Your task to perform on an android device: Open network settings Image 0: 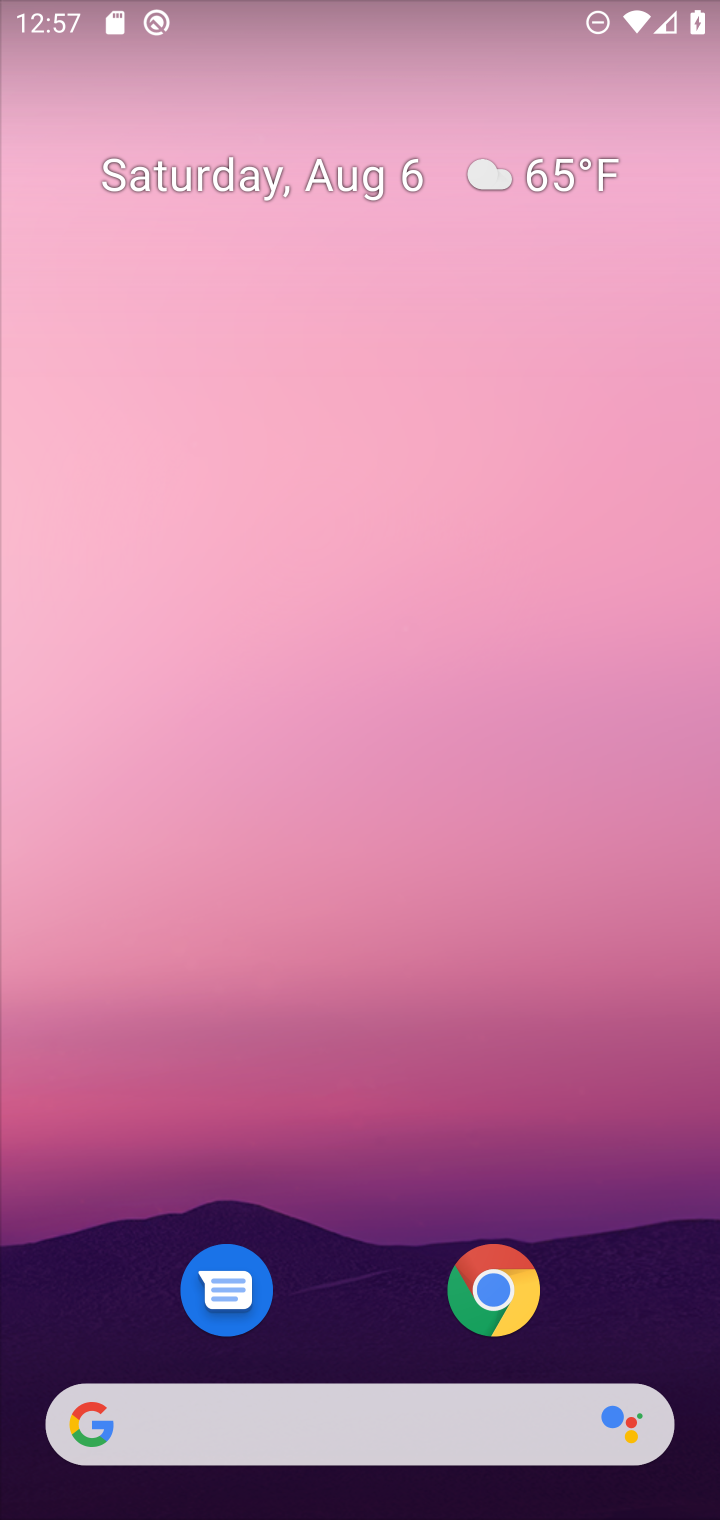
Step 0: press home button
Your task to perform on an android device: Open network settings Image 1: 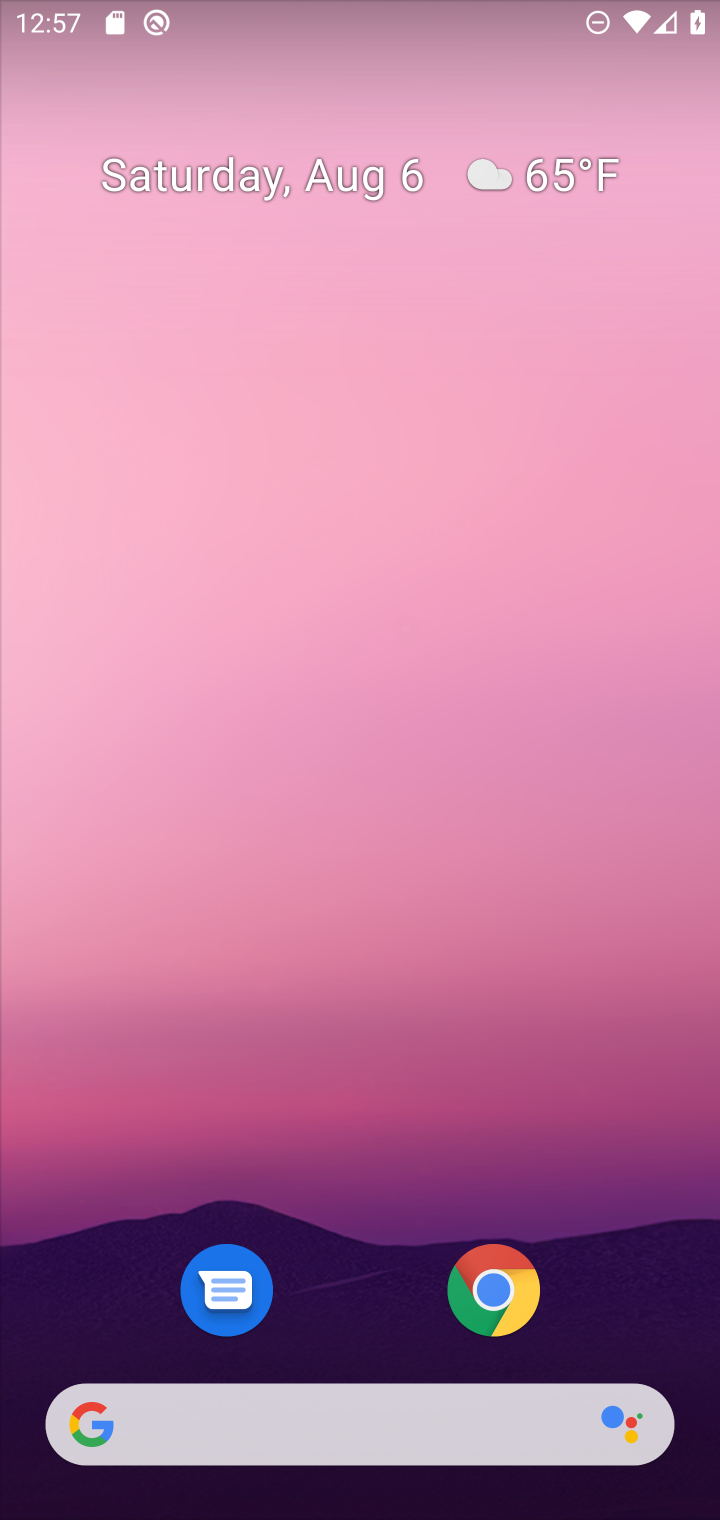
Step 1: drag from (340, 1235) to (700, 1125)
Your task to perform on an android device: Open network settings Image 2: 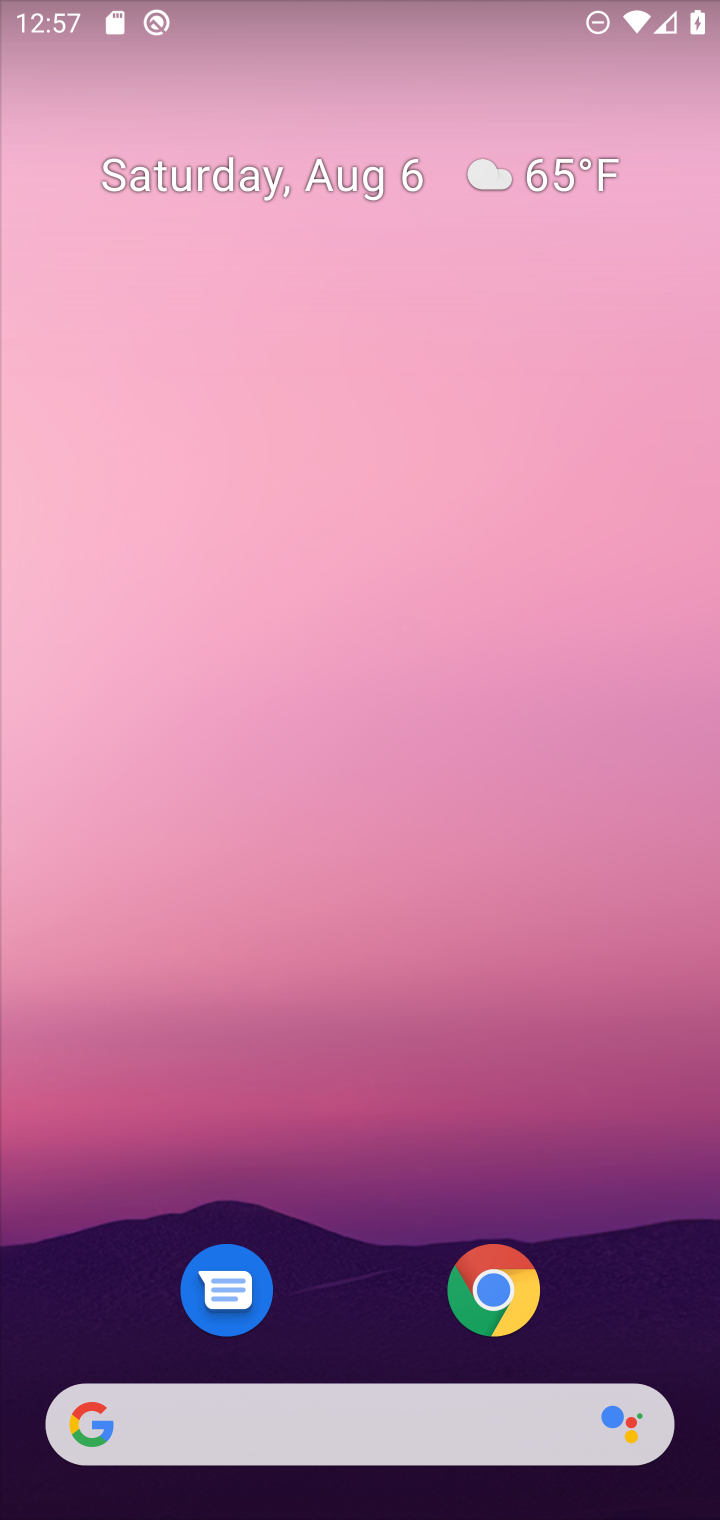
Step 2: drag from (349, 1243) to (308, 26)
Your task to perform on an android device: Open network settings Image 3: 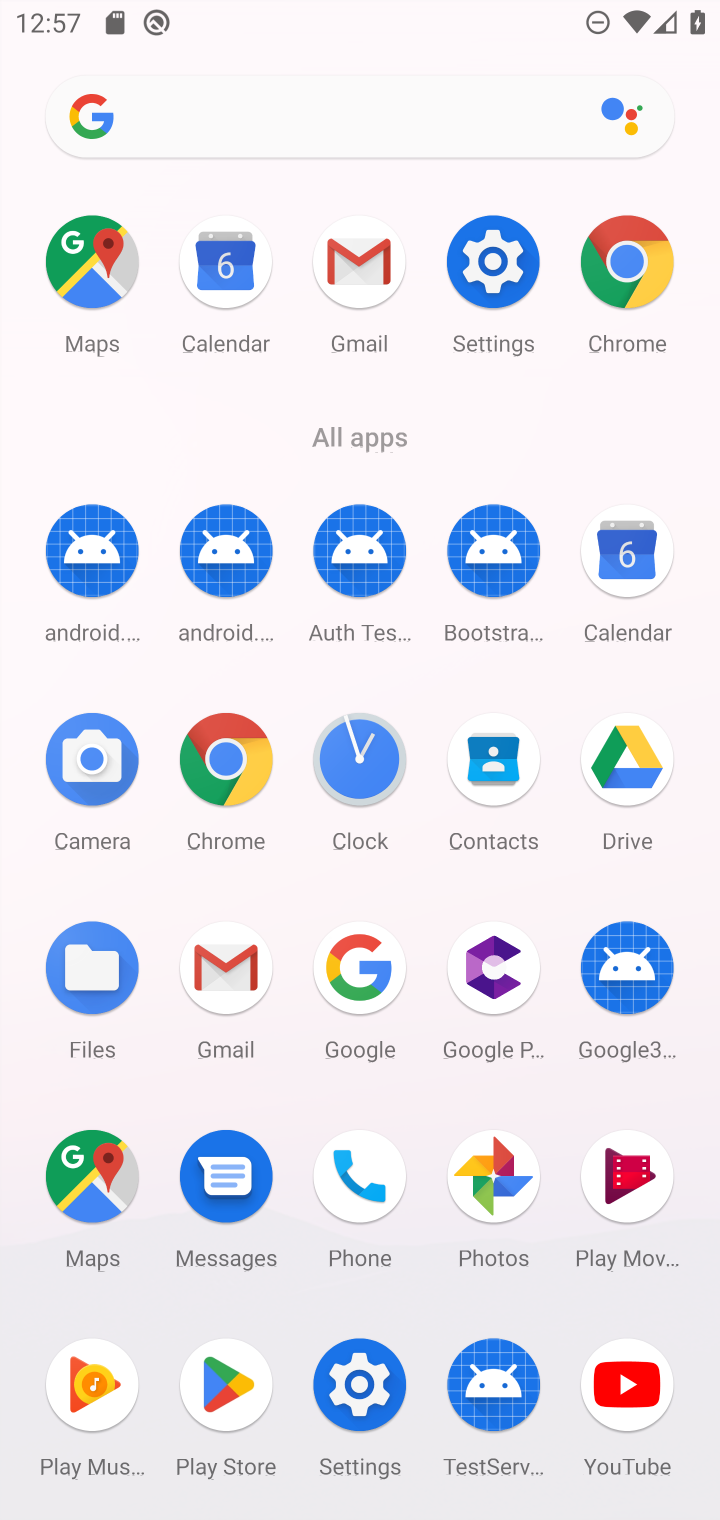
Step 3: click (357, 1443)
Your task to perform on an android device: Open network settings Image 4: 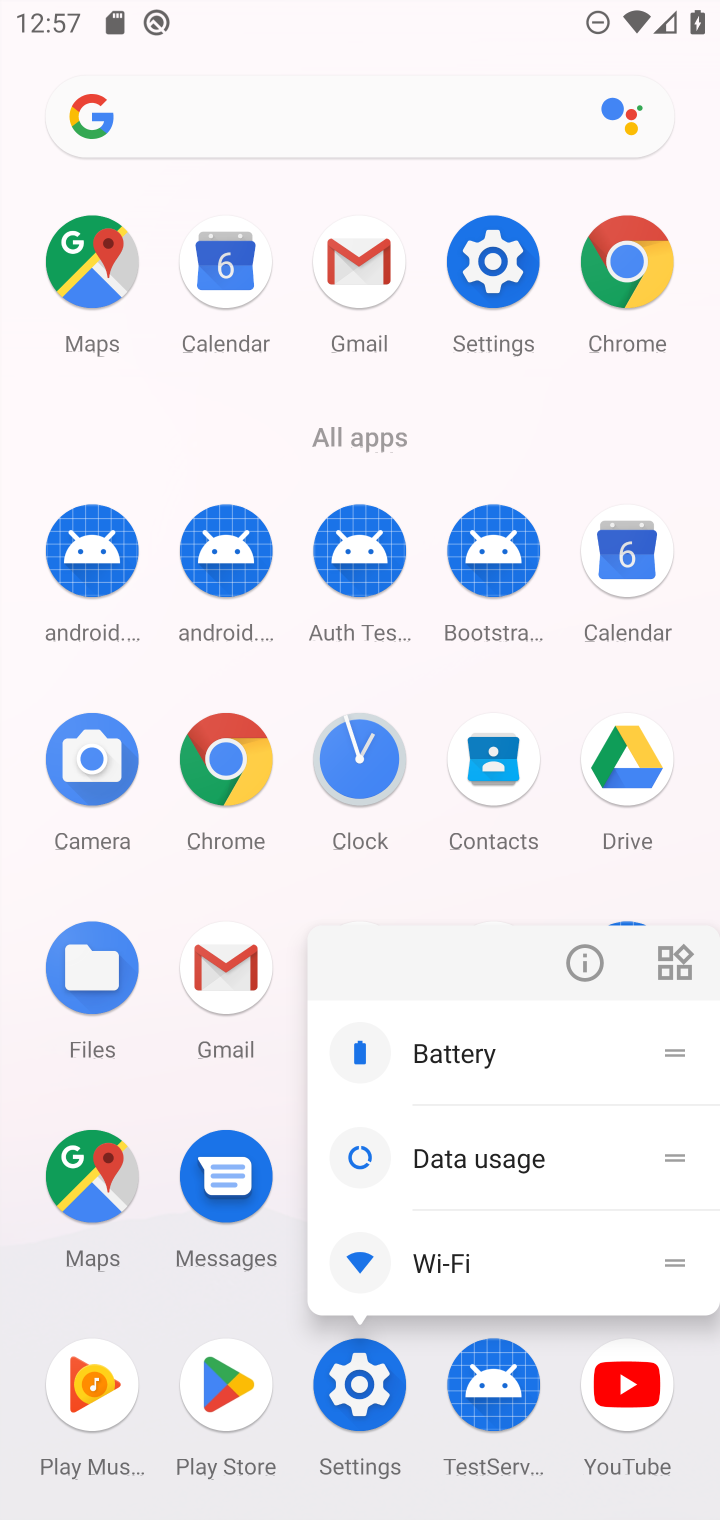
Step 4: click (383, 1356)
Your task to perform on an android device: Open network settings Image 5: 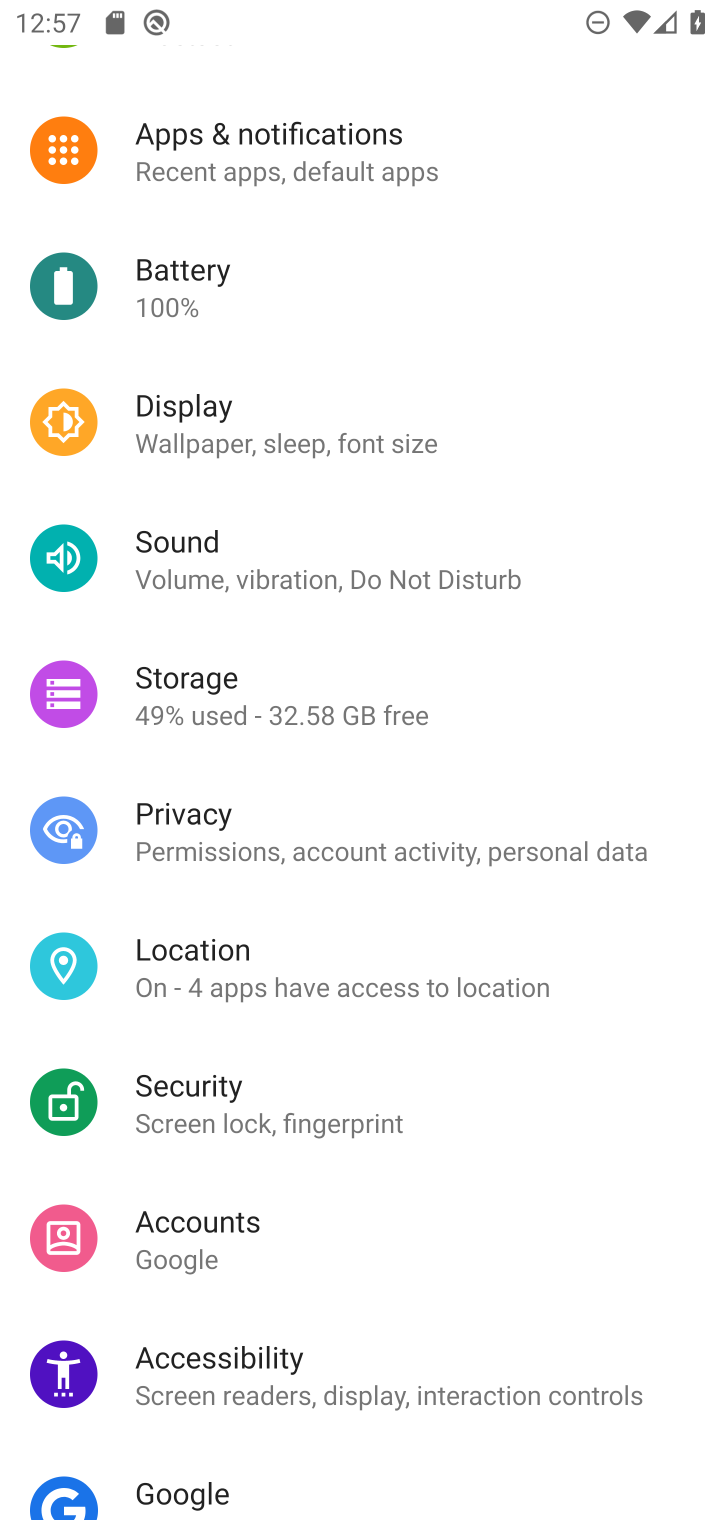
Step 5: drag from (328, 544) to (238, 1016)
Your task to perform on an android device: Open network settings Image 6: 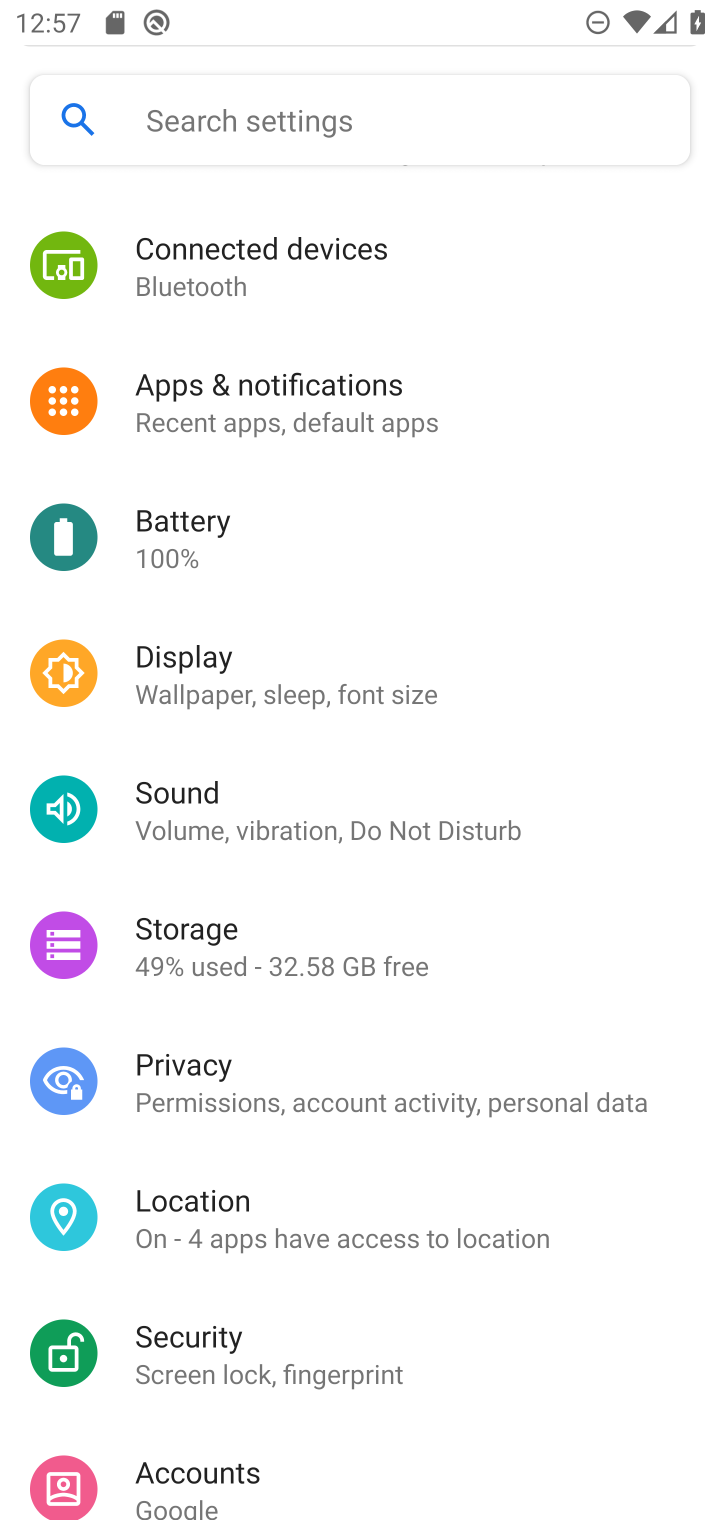
Step 6: drag from (199, 393) to (58, 1107)
Your task to perform on an android device: Open network settings Image 7: 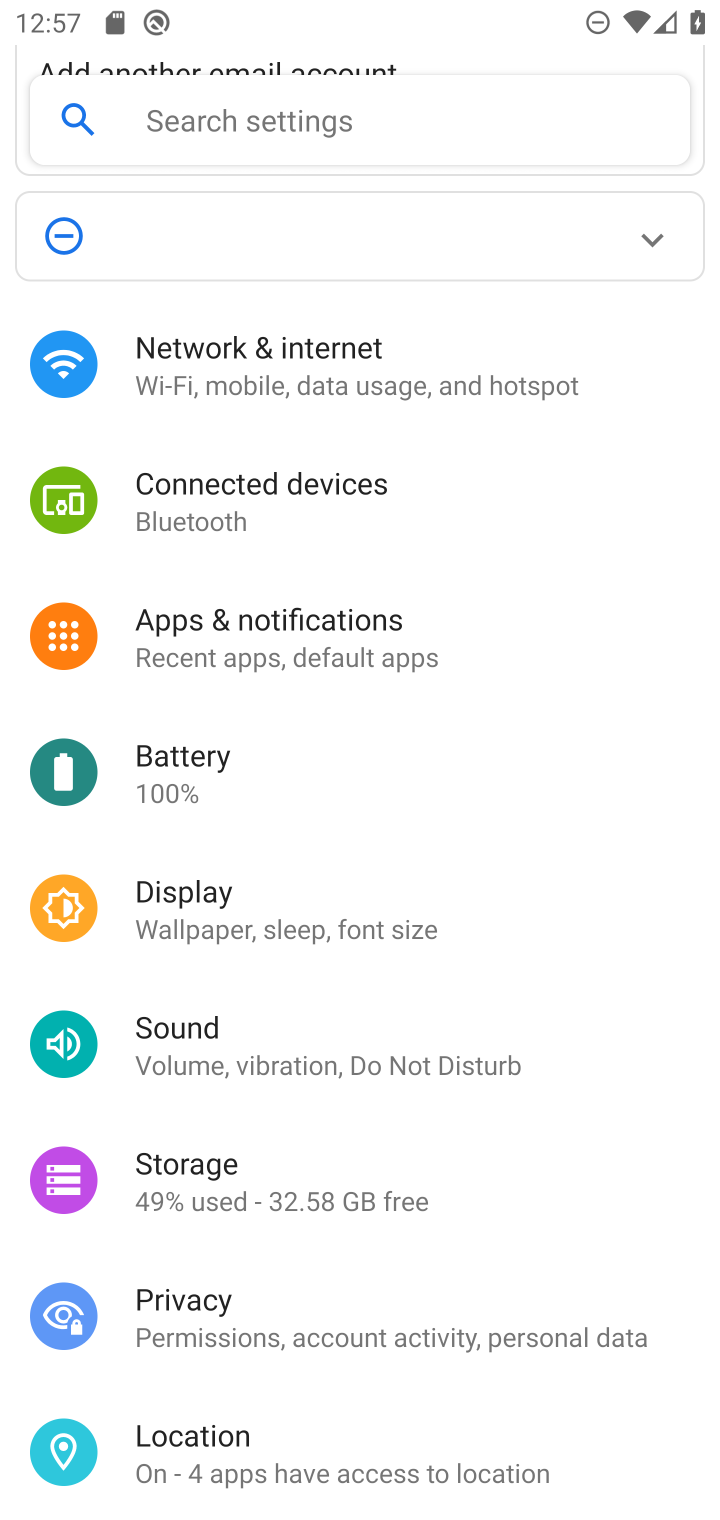
Step 7: click (275, 412)
Your task to perform on an android device: Open network settings Image 8: 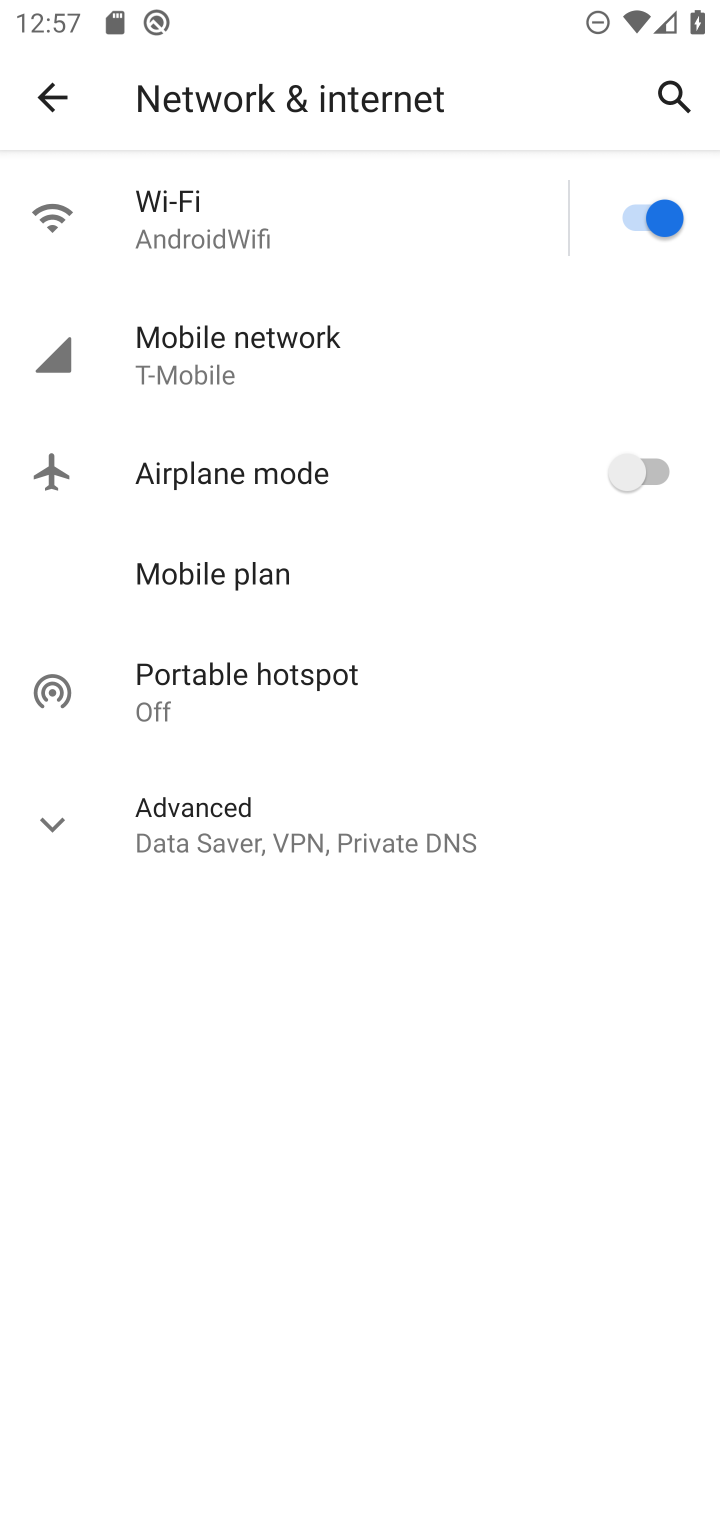
Step 8: task complete